Your task to perform on an android device: Open Yahoo.com Image 0: 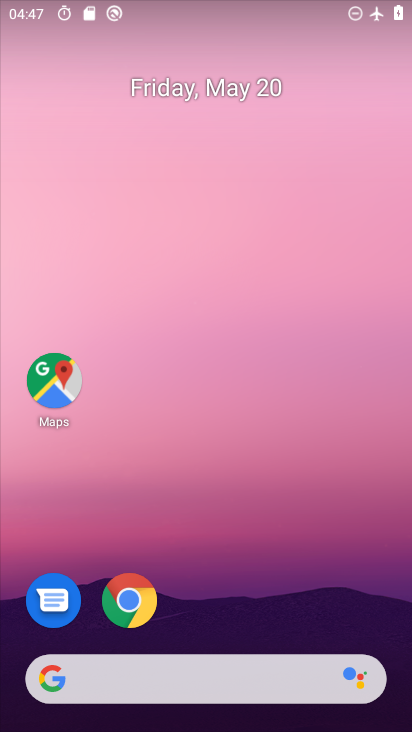
Step 0: click (141, 590)
Your task to perform on an android device: Open Yahoo.com Image 1: 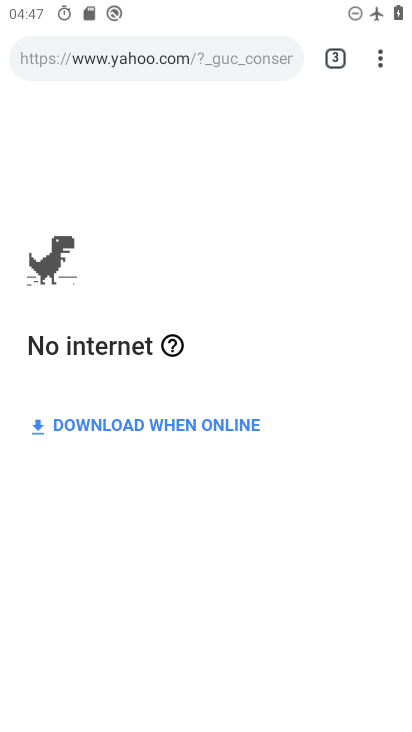
Step 1: click (336, 58)
Your task to perform on an android device: Open Yahoo.com Image 2: 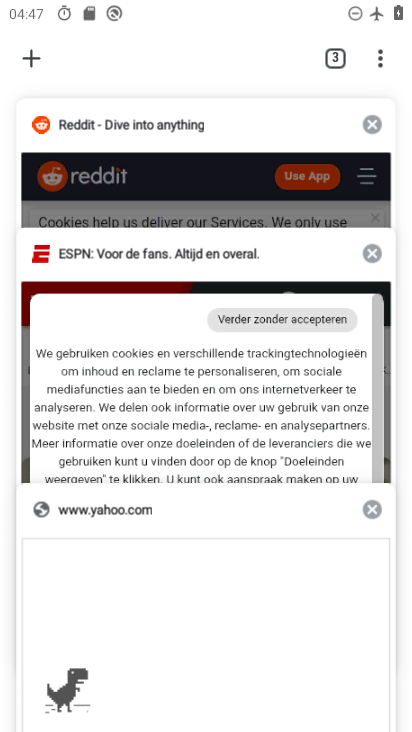
Step 2: click (33, 49)
Your task to perform on an android device: Open Yahoo.com Image 3: 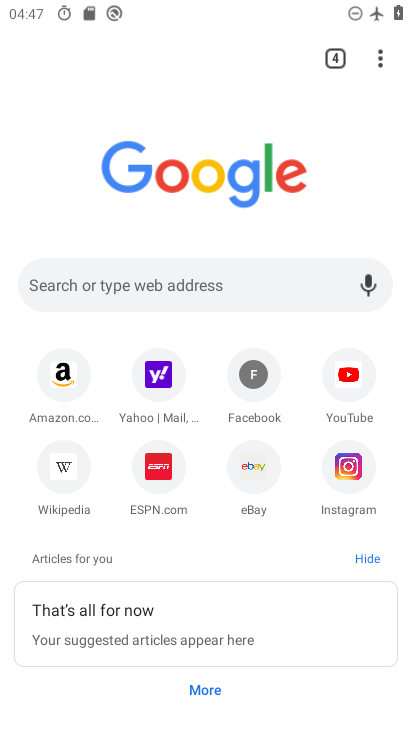
Step 3: click (147, 366)
Your task to perform on an android device: Open Yahoo.com Image 4: 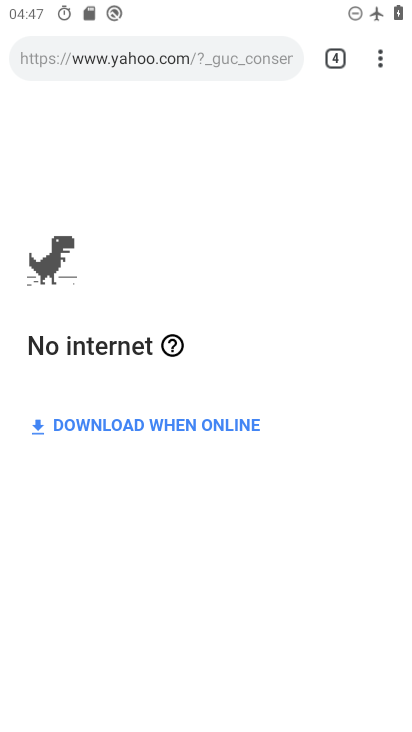
Step 4: drag from (360, 3) to (309, 575)
Your task to perform on an android device: Open Yahoo.com Image 5: 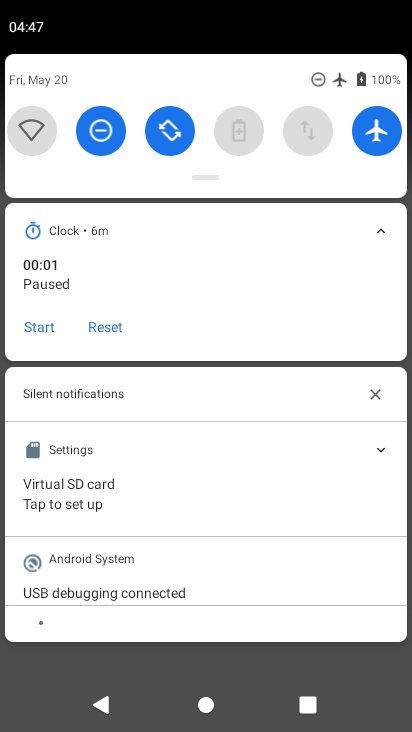
Step 5: click (377, 126)
Your task to perform on an android device: Open Yahoo.com Image 6: 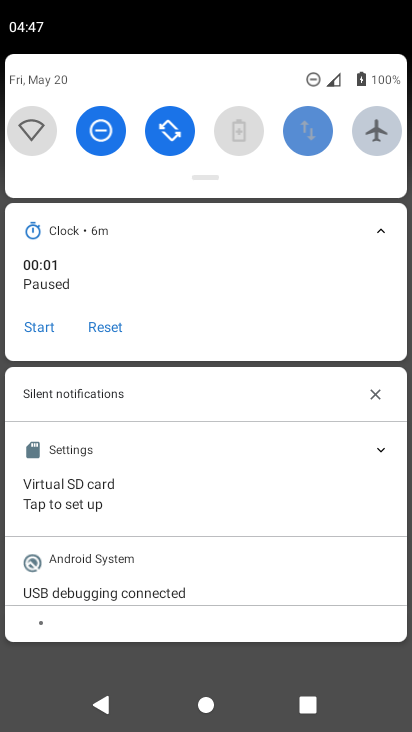
Step 6: click (243, 675)
Your task to perform on an android device: Open Yahoo.com Image 7: 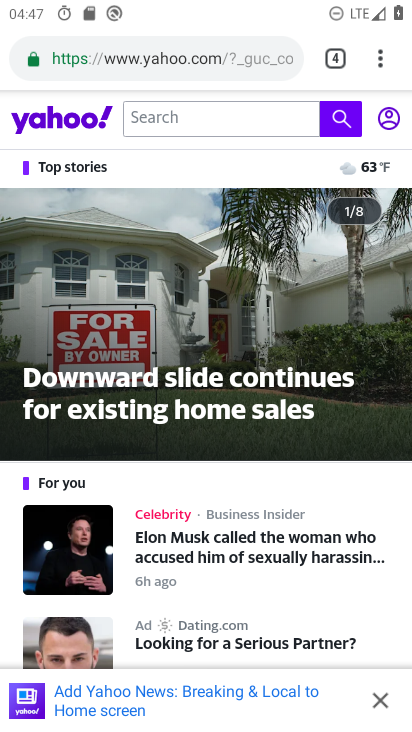
Step 7: task complete